Your task to perform on an android device: Go to notification settings Image 0: 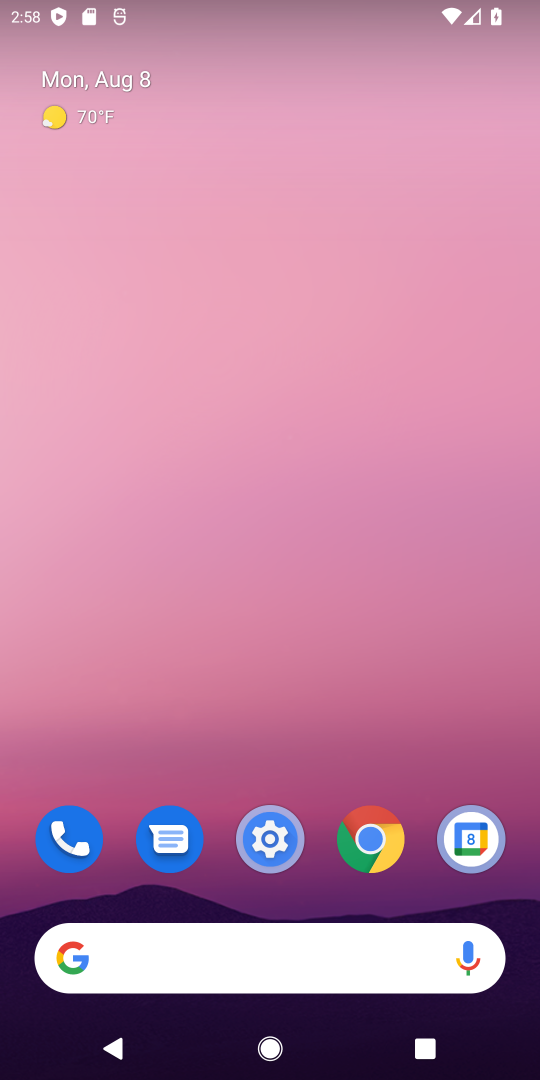
Step 0: press home button
Your task to perform on an android device: Go to notification settings Image 1: 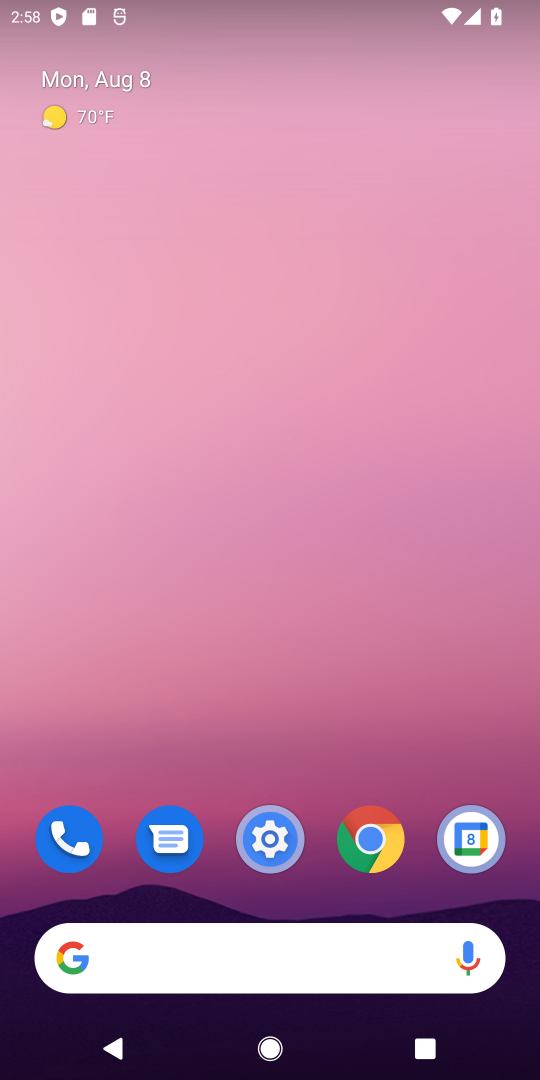
Step 1: drag from (405, 732) to (455, 145)
Your task to perform on an android device: Go to notification settings Image 2: 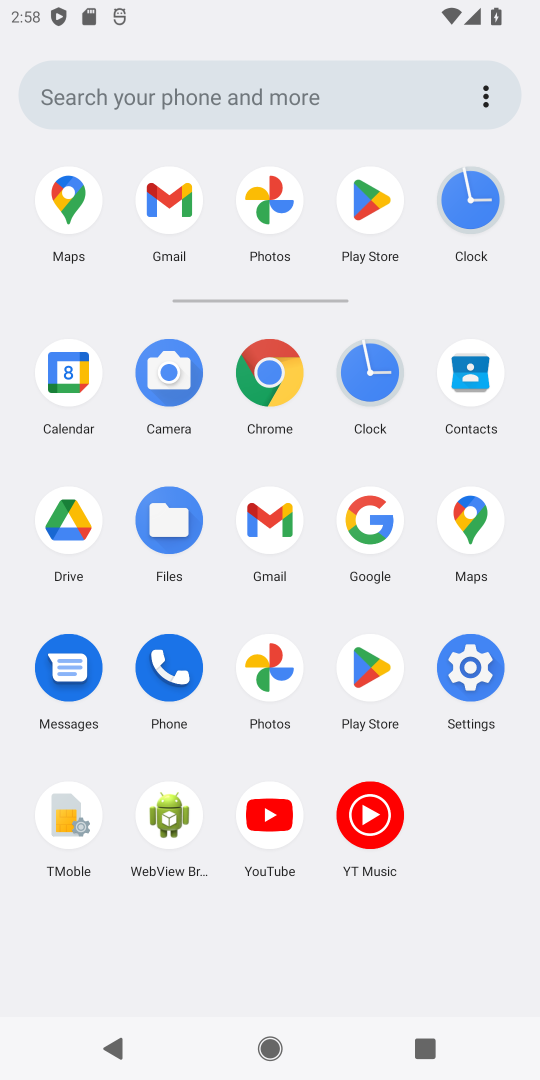
Step 2: click (475, 658)
Your task to perform on an android device: Go to notification settings Image 3: 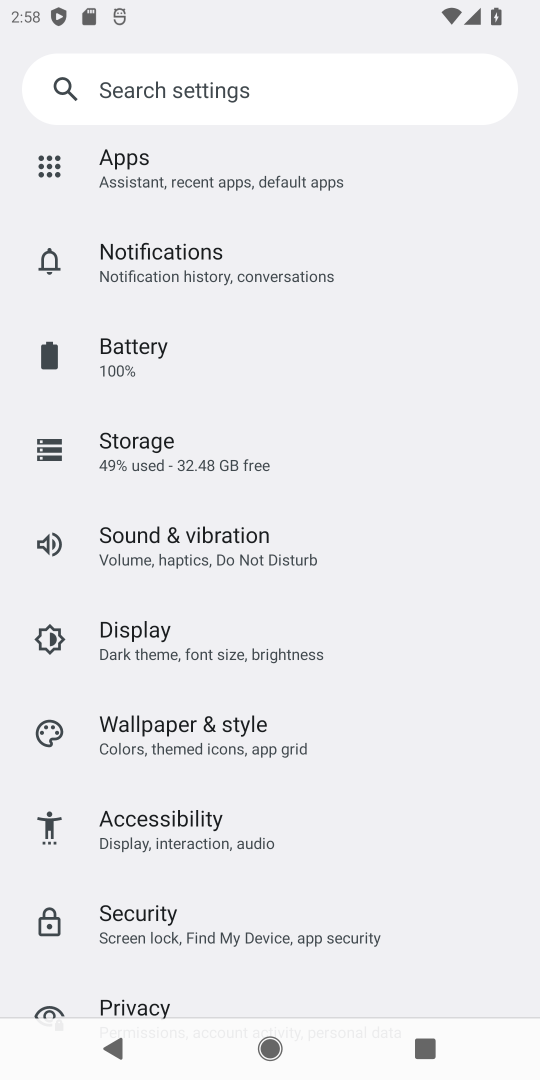
Step 3: drag from (447, 454) to (441, 574)
Your task to perform on an android device: Go to notification settings Image 4: 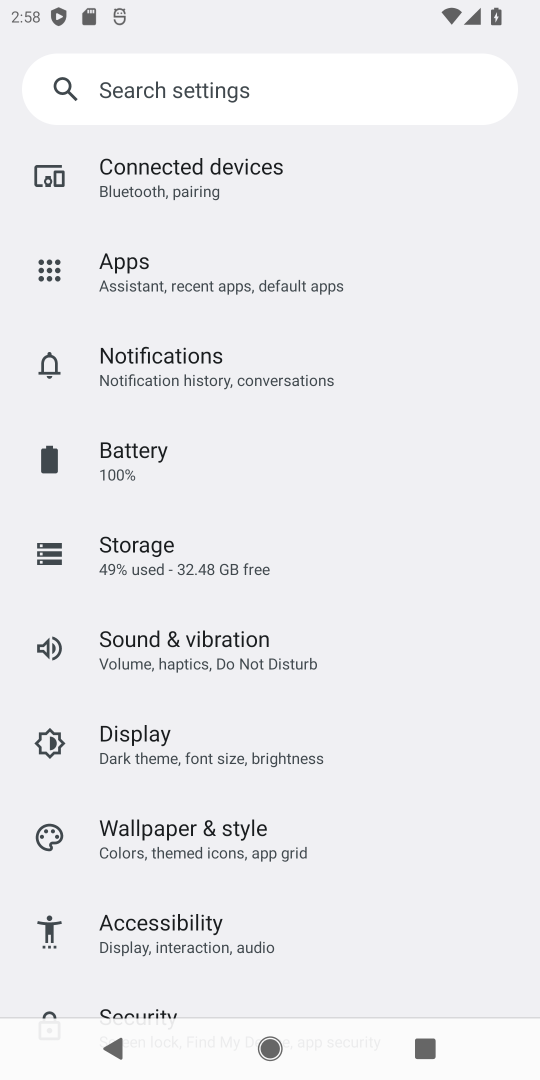
Step 4: drag from (436, 326) to (434, 500)
Your task to perform on an android device: Go to notification settings Image 5: 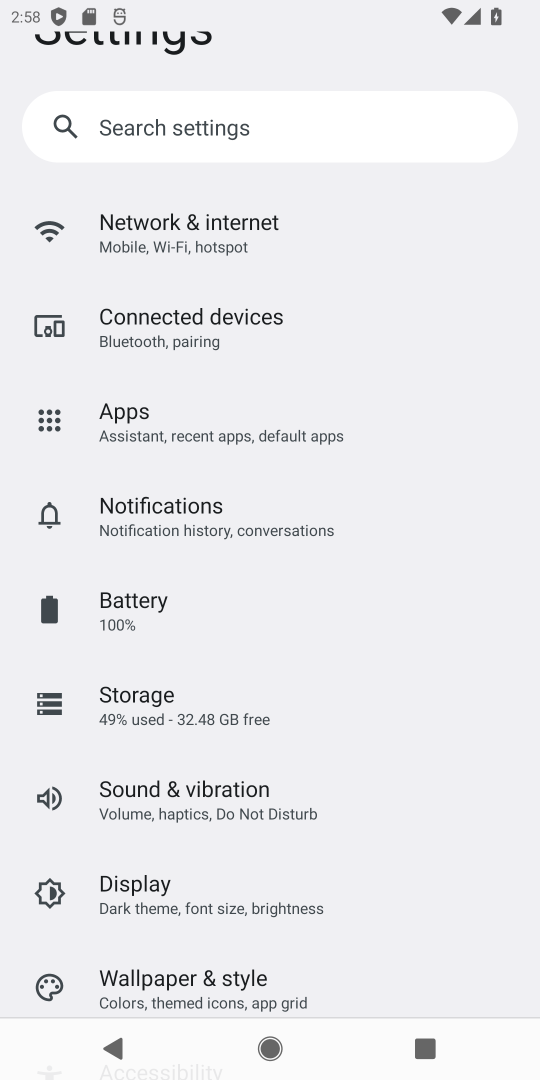
Step 5: drag from (413, 302) to (421, 633)
Your task to perform on an android device: Go to notification settings Image 6: 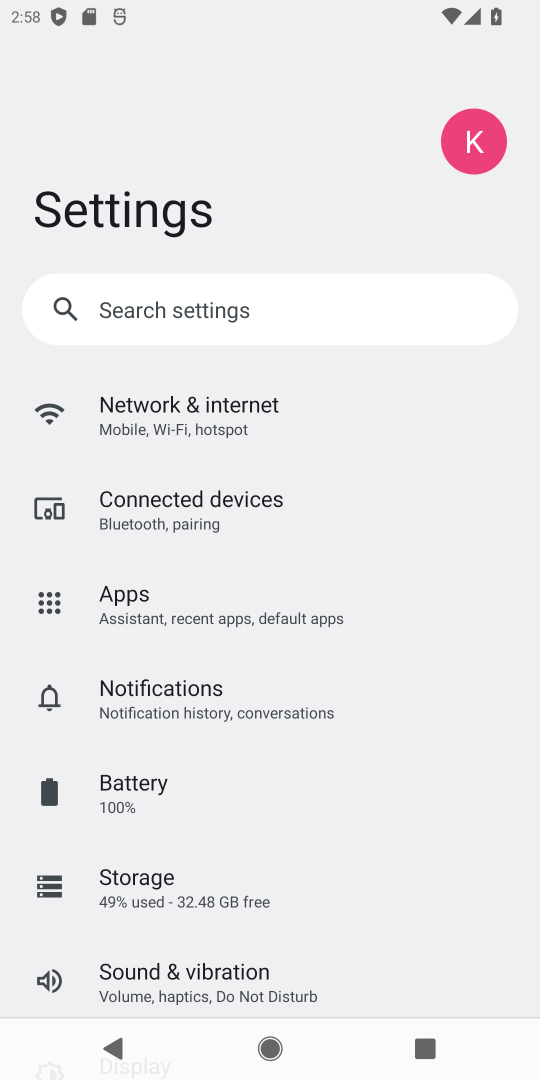
Step 6: click (396, 702)
Your task to perform on an android device: Go to notification settings Image 7: 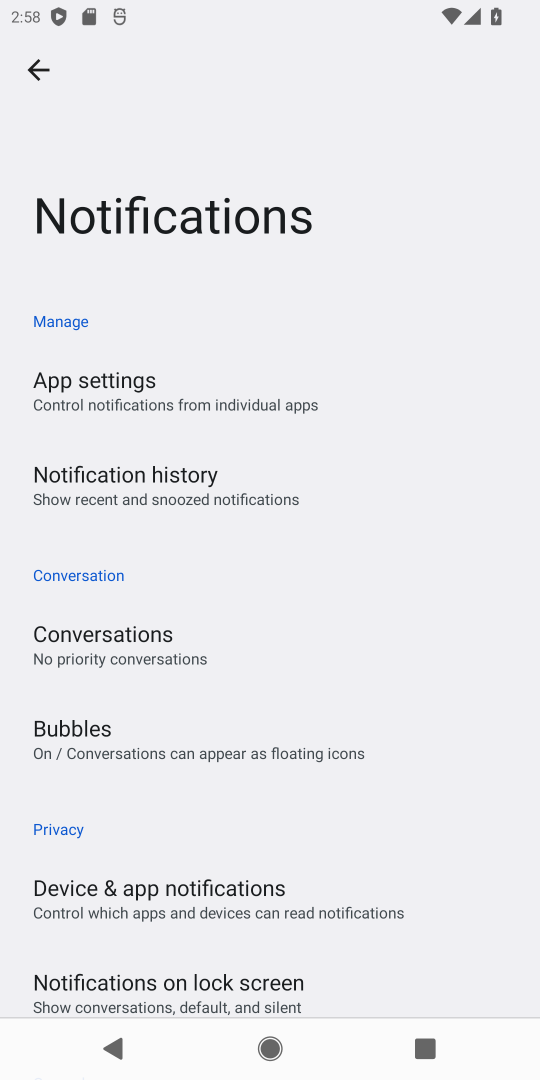
Step 7: task complete